Your task to perform on an android device: Open Google Maps and go to "Timeline" Image 0: 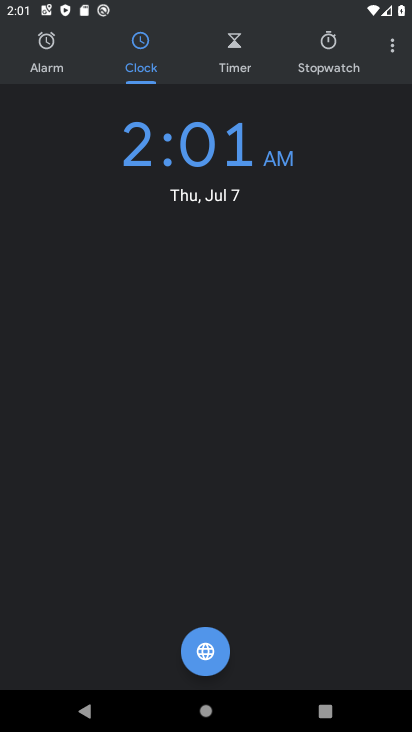
Step 0: press home button
Your task to perform on an android device: Open Google Maps and go to "Timeline" Image 1: 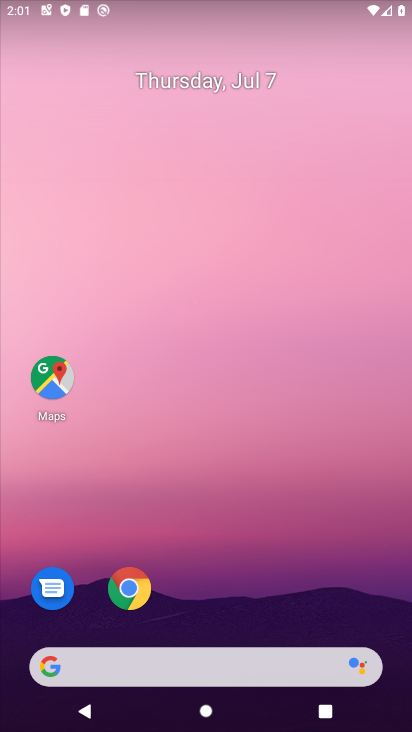
Step 1: click (49, 370)
Your task to perform on an android device: Open Google Maps and go to "Timeline" Image 2: 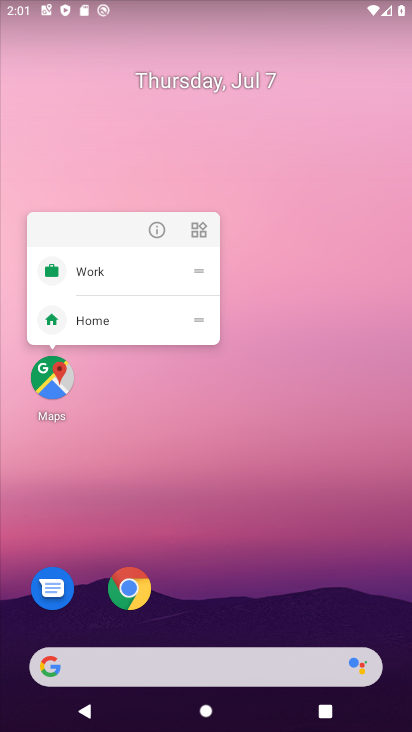
Step 2: click (49, 385)
Your task to perform on an android device: Open Google Maps and go to "Timeline" Image 3: 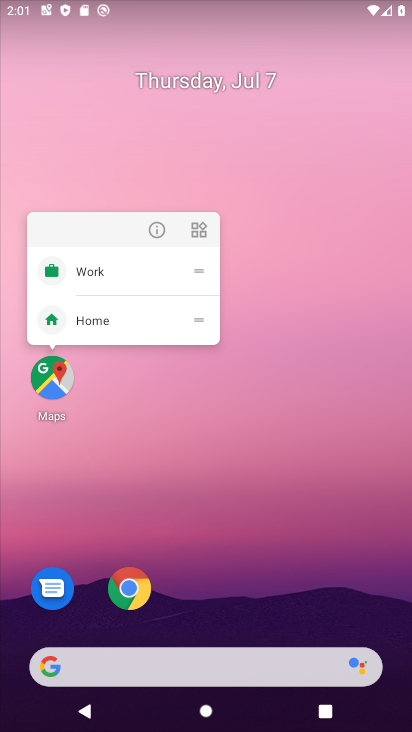
Step 3: click (54, 371)
Your task to perform on an android device: Open Google Maps and go to "Timeline" Image 4: 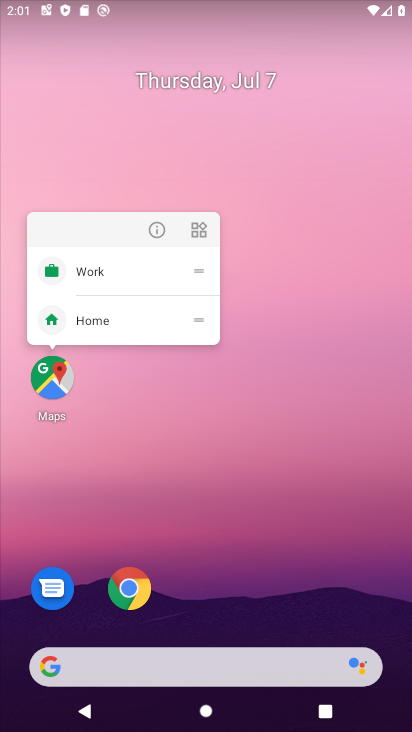
Step 4: click (54, 370)
Your task to perform on an android device: Open Google Maps and go to "Timeline" Image 5: 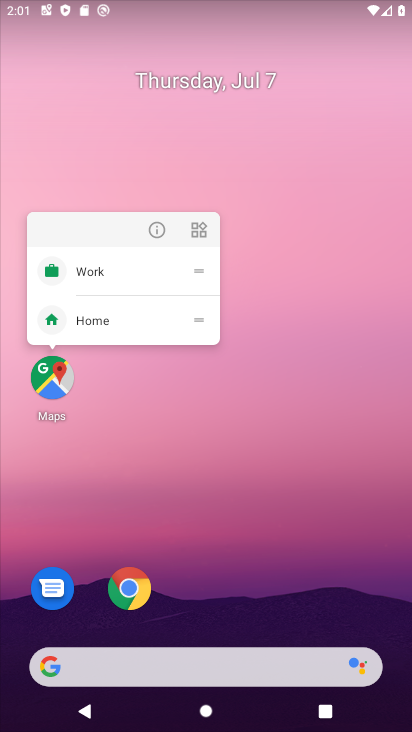
Step 5: click (65, 389)
Your task to perform on an android device: Open Google Maps and go to "Timeline" Image 6: 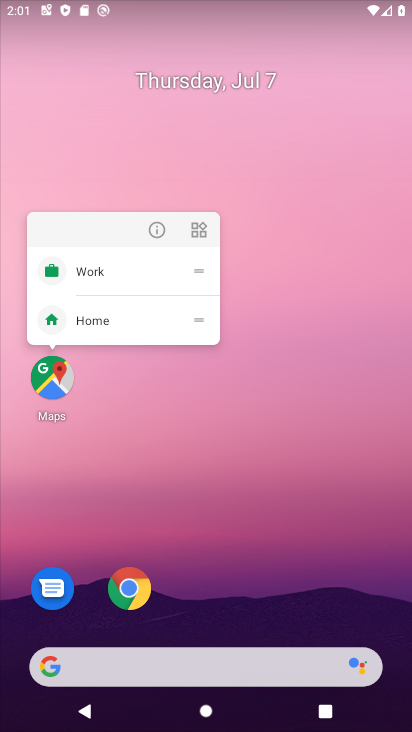
Step 6: click (44, 391)
Your task to perform on an android device: Open Google Maps and go to "Timeline" Image 7: 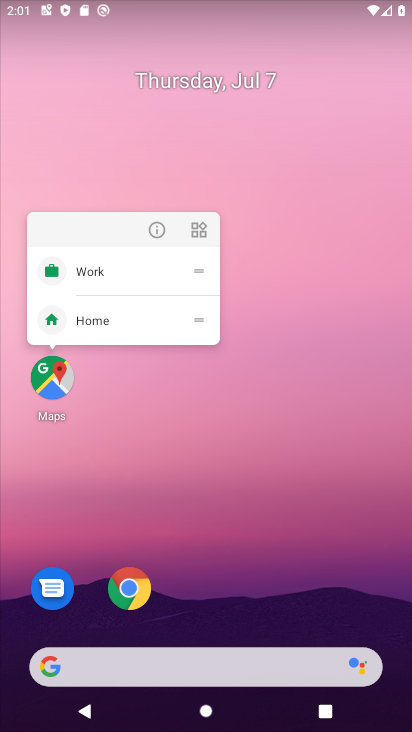
Step 7: click (51, 378)
Your task to perform on an android device: Open Google Maps and go to "Timeline" Image 8: 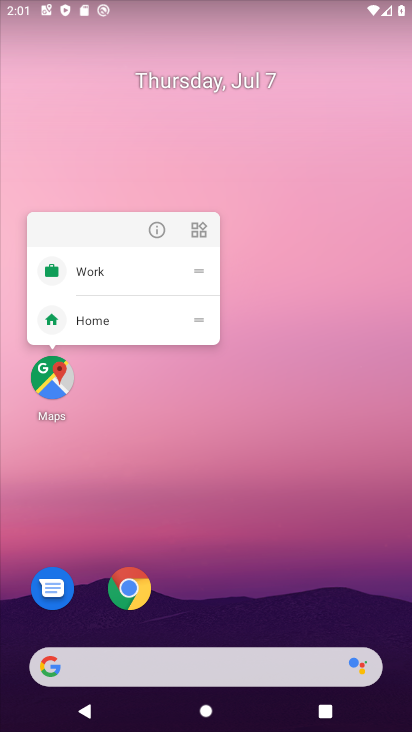
Step 8: click (46, 367)
Your task to perform on an android device: Open Google Maps and go to "Timeline" Image 9: 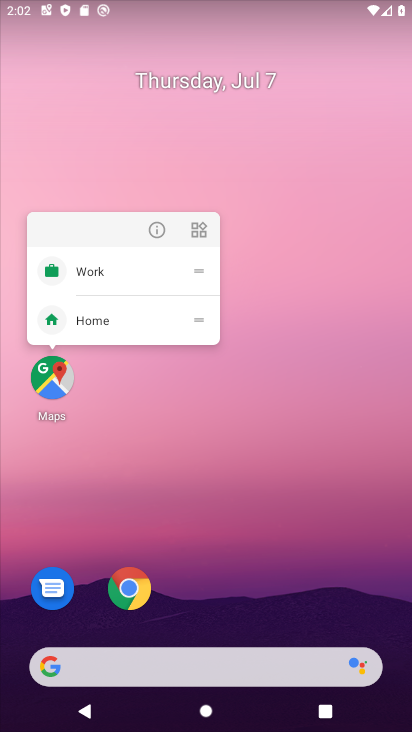
Step 9: click (45, 382)
Your task to perform on an android device: Open Google Maps and go to "Timeline" Image 10: 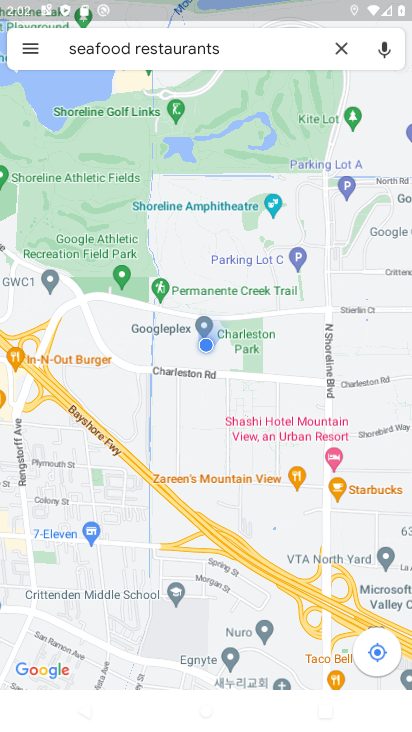
Step 10: click (34, 48)
Your task to perform on an android device: Open Google Maps and go to "Timeline" Image 11: 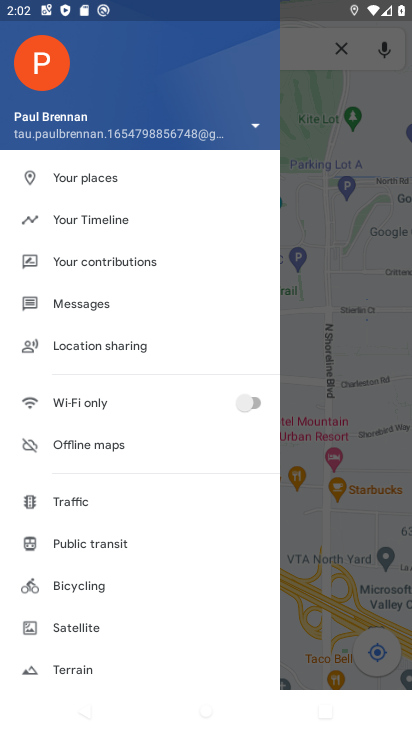
Step 11: click (84, 211)
Your task to perform on an android device: Open Google Maps and go to "Timeline" Image 12: 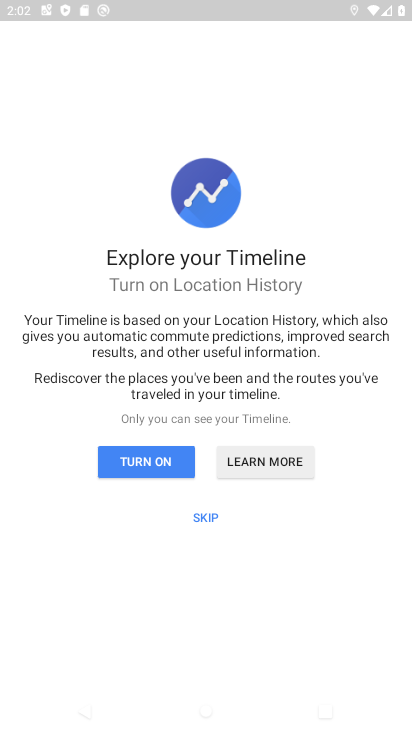
Step 12: task complete